Your task to perform on an android device: find photos in the google photos app Image 0: 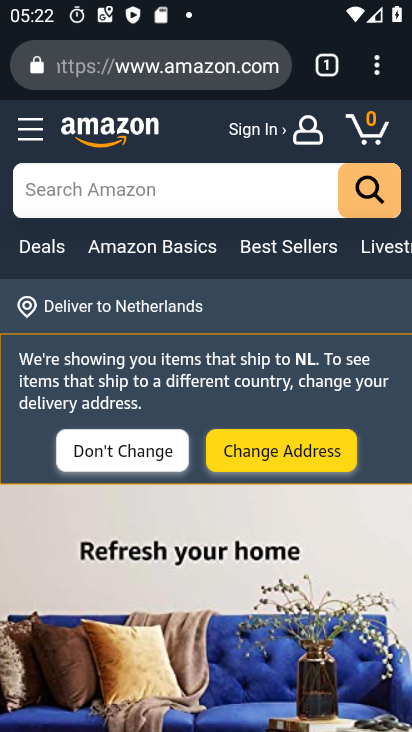
Step 0: press home button
Your task to perform on an android device: find photos in the google photos app Image 1: 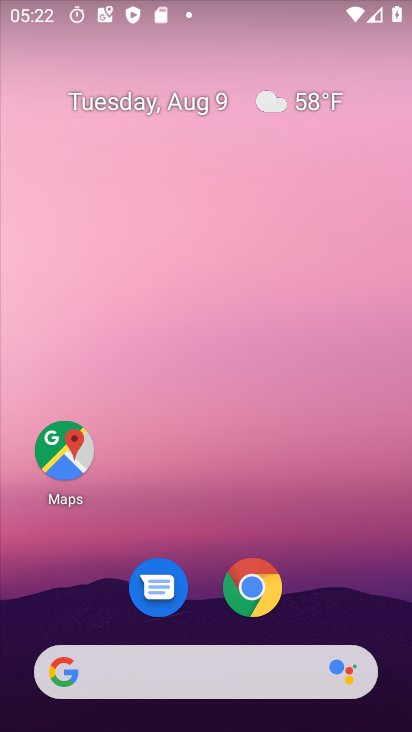
Step 1: drag from (206, 658) to (247, 145)
Your task to perform on an android device: find photos in the google photos app Image 2: 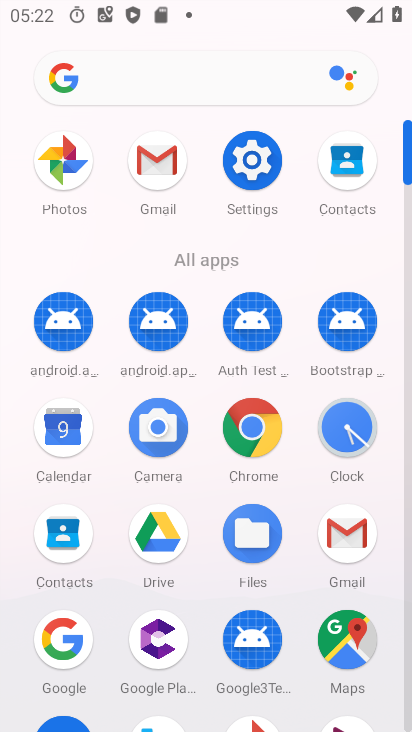
Step 2: click (81, 185)
Your task to perform on an android device: find photos in the google photos app Image 3: 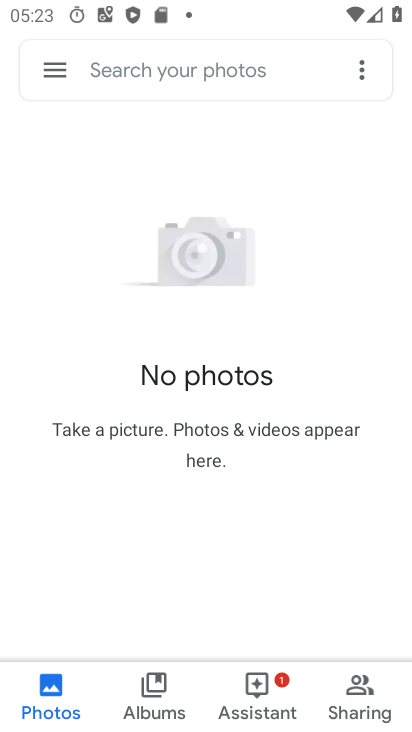
Step 3: task complete